Your task to perform on an android device: What's the weather going to be tomorrow? Image 0: 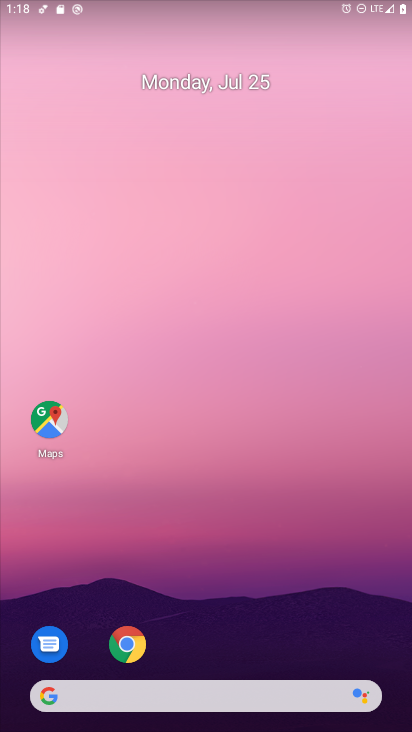
Step 0: click (219, 692)
Your task to perform on an android device: What's the weather going to be tomorrow? Image 1: 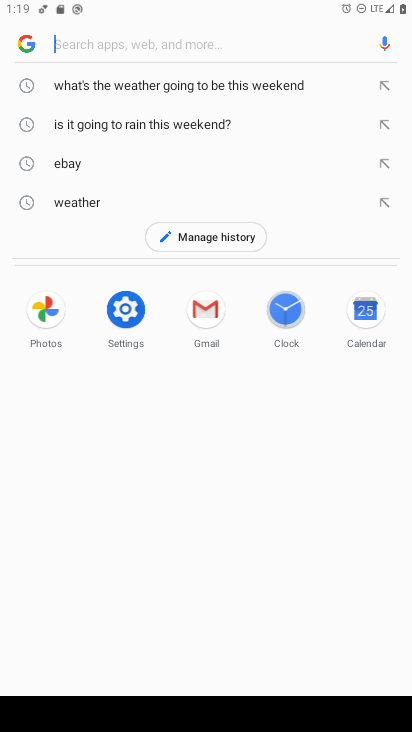
Step 1: type "what's the weather going to be tomorrow"
Your task to perform on an android device: What's the weather going to be tomorrow? Image 2: 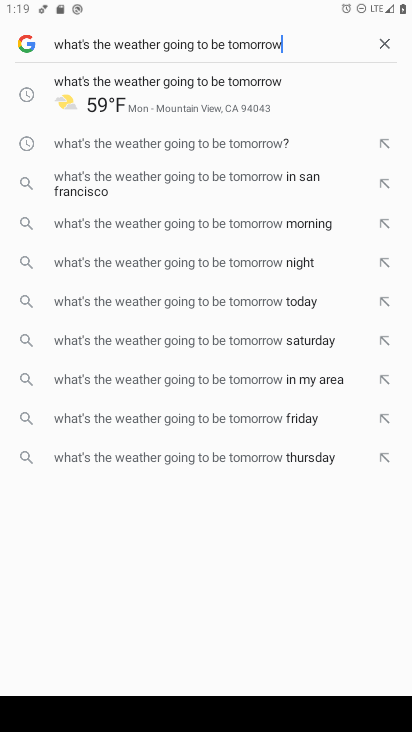
Step 2: click (286, 92)
Your task to perform on an android device: What's the weather going to be tomorrow? Image 3: 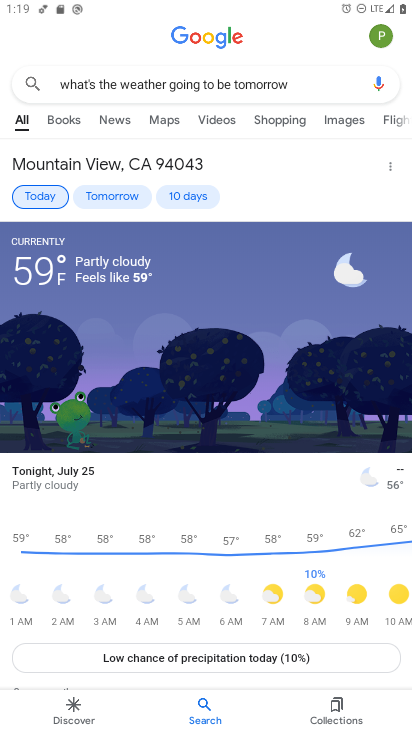
Step 3: click (106, 191)
Your task to perform on an android device: What's the weather going to be tomorrow? Image 4: 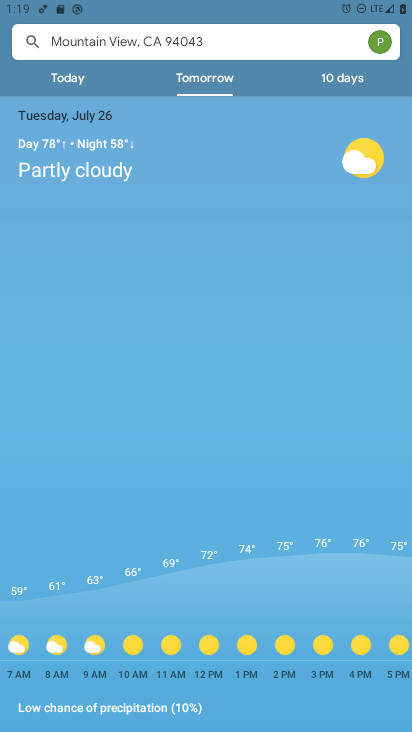
Step 4: task complete